Your task to perform on an android device: clear history in the chrome app Image 0: 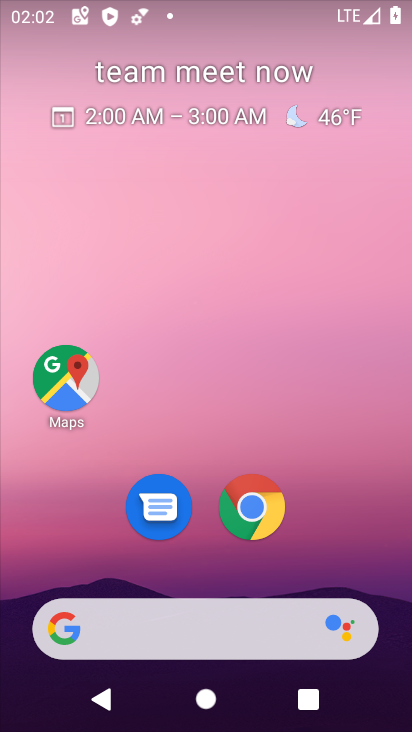
Step 0: drag from (241, 644) to (315, 240)
Your task to perform on an android device: clear history in the chrome app Image 1: 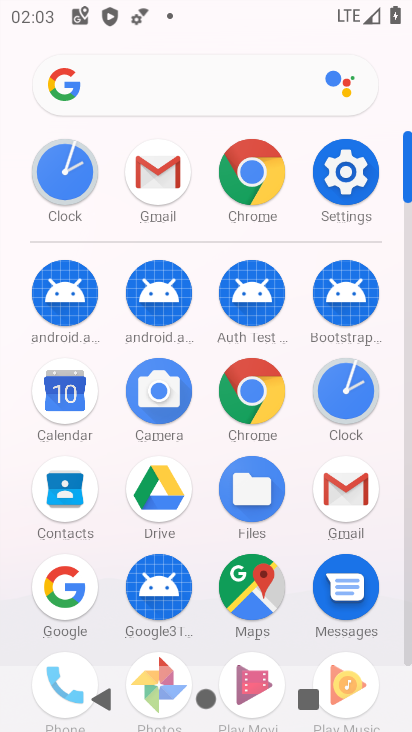
Step 1: click (241, 162)
Your task to perform on an android device: clear history in the chrome app Image 2: 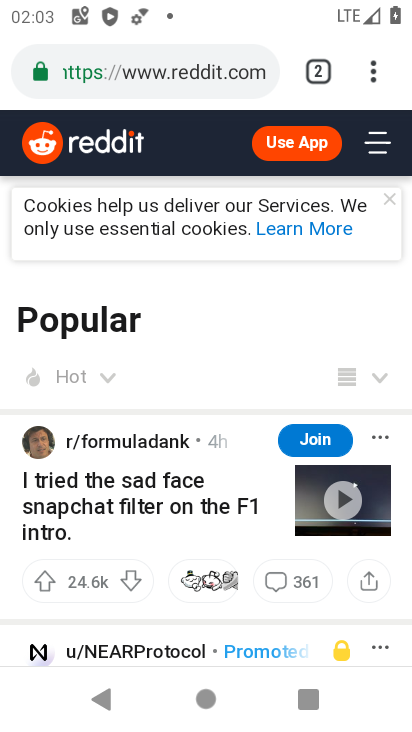
Step 2: click (369, 66)
Your task to perform on an android device: clear history in the chrome app Image 3: 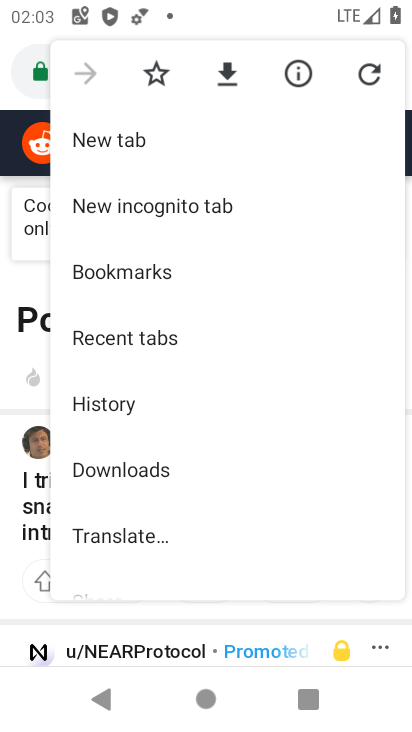
Step 3: drag from (226, 504) to (272, 344)
Your task to perform on an android device: clear history in the chrome app Image 4: 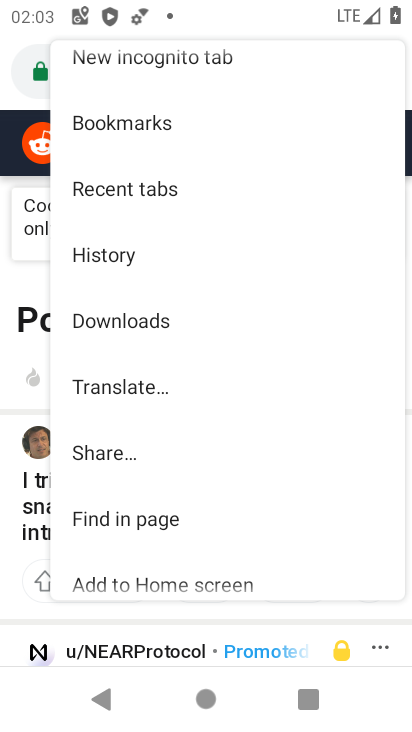
Step 4: drag from (142, 523) to (204, 382)
Your task to perform on an android device: clear history in the chrome app Image 5: 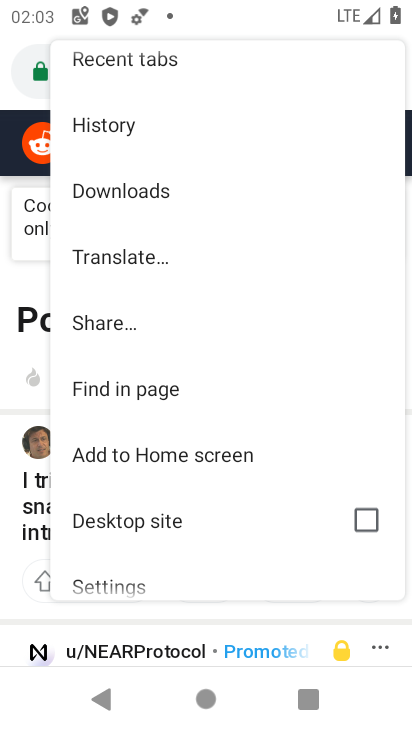
Step 5: click (110, 577)
Your task to perform on an android device: clear history in the chrome app Image 6: 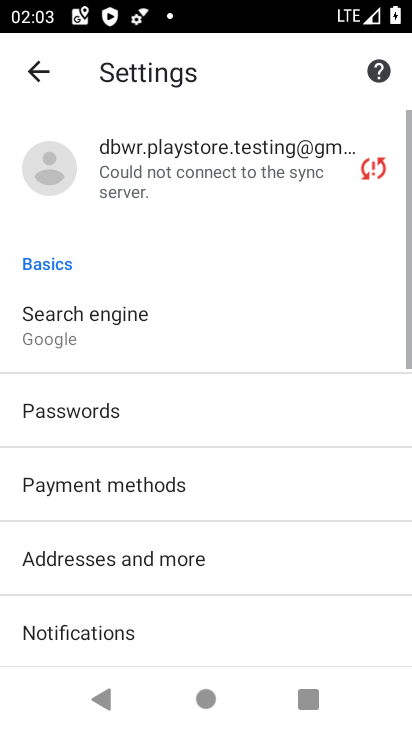
Step 6: drag from (143, 526) to (243, 275)
Your task to perform on an android device: clear history in the chrome app Image 7: 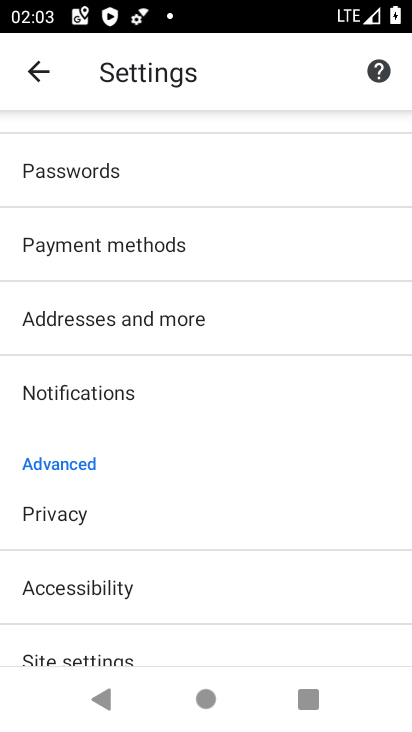
Step 7: drag from (129, 569) to (204, 413)
Your task to perform on an android device: clear history in the chrome app Image 8: 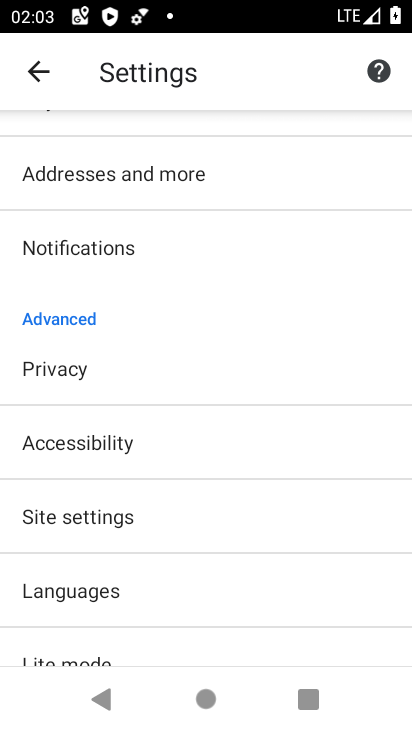
Step 8: click (41, 364)
Your task to perform on an android device: clear history in the chrome app Image 9: 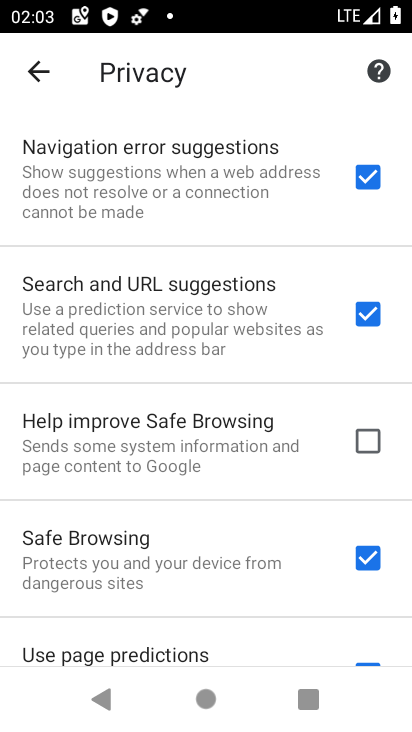
Step 9: drag from (170, 546) to (298, 132)
Your task to perform on an android device: clear history in the chrome app Image 10: 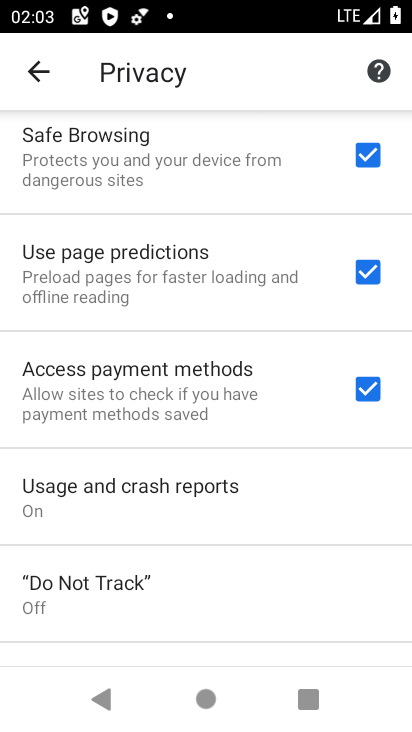
Step 10: drag from (212, 550) to (274, 196)
Your task to perform on an android device: clear history in the chrome app Image 11: 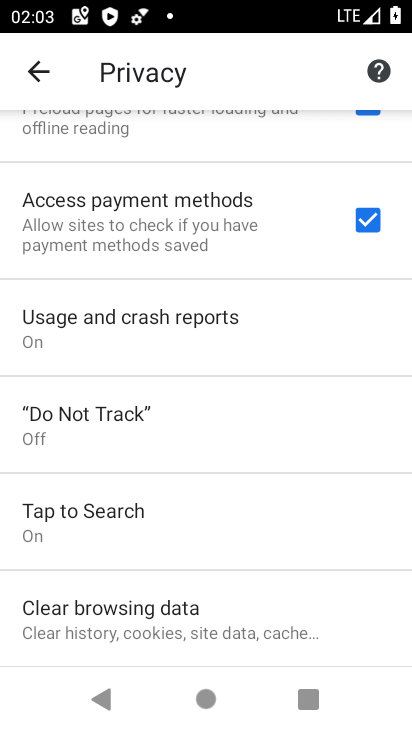
Step 11: click (158, 607)
Your task to perform on an android device: clear history in the chrome app Image 12: 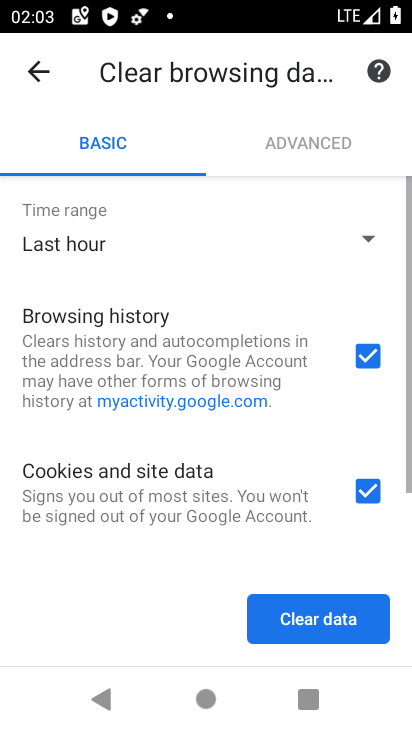
Step 12: click (368, 495)
Your task to perform on an android device: clear history in the chrome app Image 13: 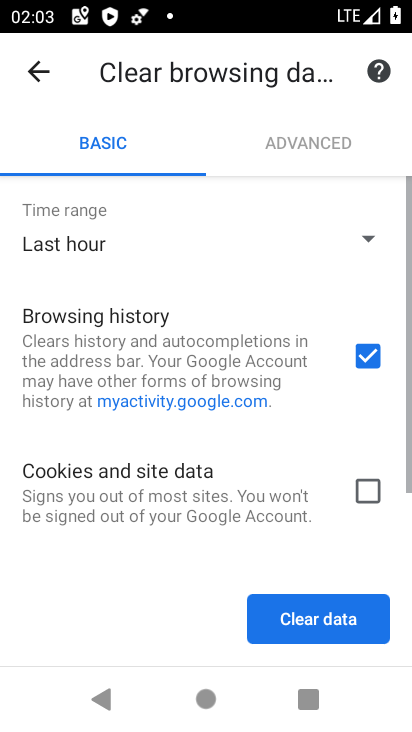
Step 13: click (291, 618)
Your task to perform on an android device: clear history in the chrome app Image 14: 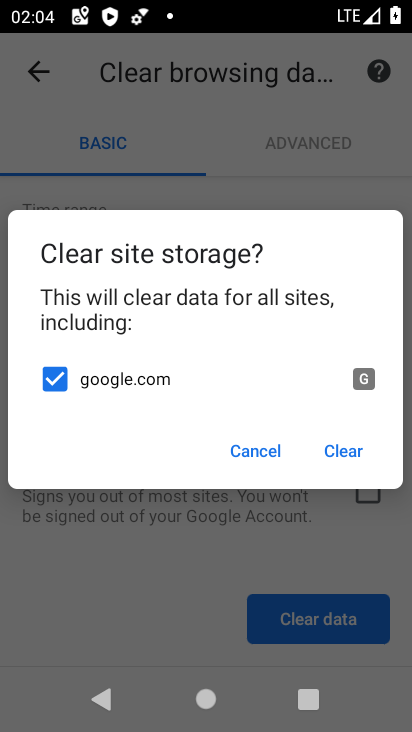
Step 14: task complete